Your task to perform on an android device: Open Google Maps Image 0: 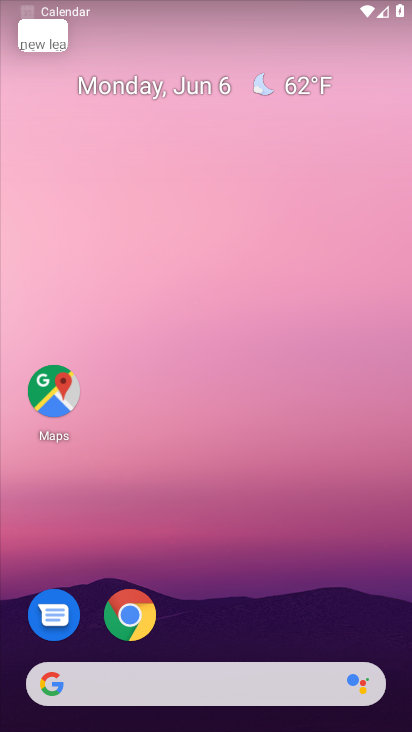
Step 0: click (79, 387)
Your task to perform on an android device: Open Google Maps Image 1: 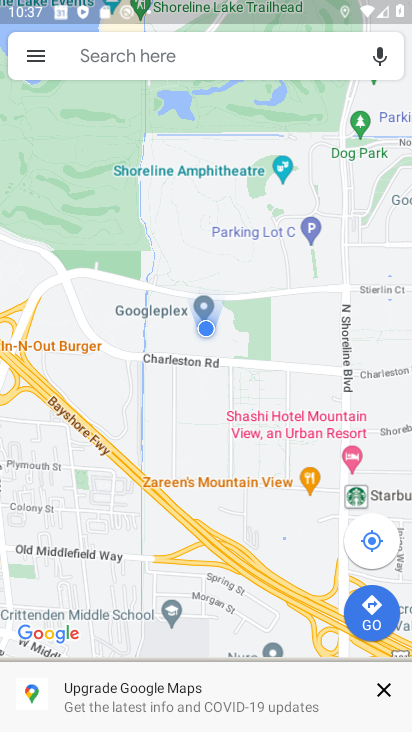
Step 1: task complete